Your task to perform on an android device: check google app version Image 0: 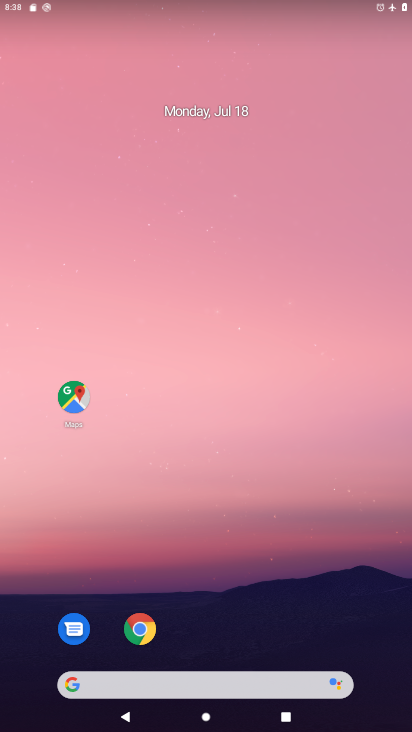
Step 0: click (70, 688)
Your task to perform on an android device: check google app version Image 1: 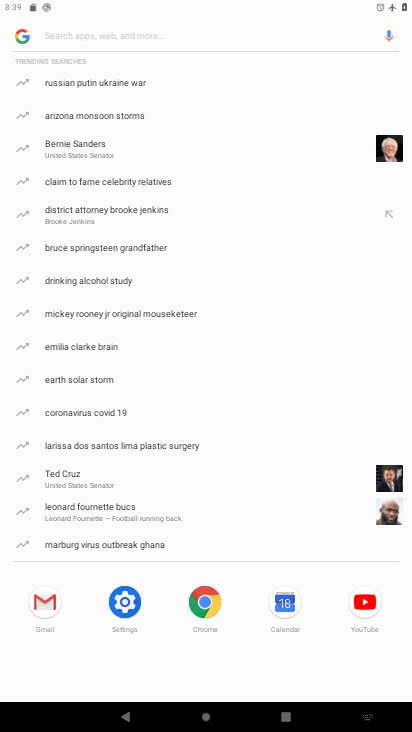
Step 1: click (21, 35)
Your task to perform on an android device: check google app version Image 2: 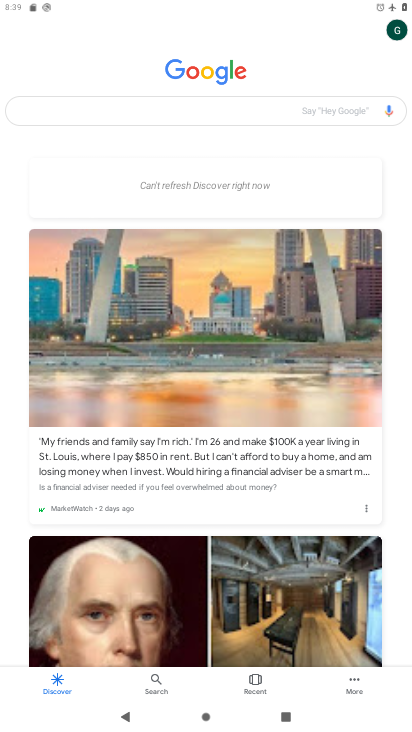
Step 2: click (360, 677)
Your task to perform on an android device: check google app version Image 3: 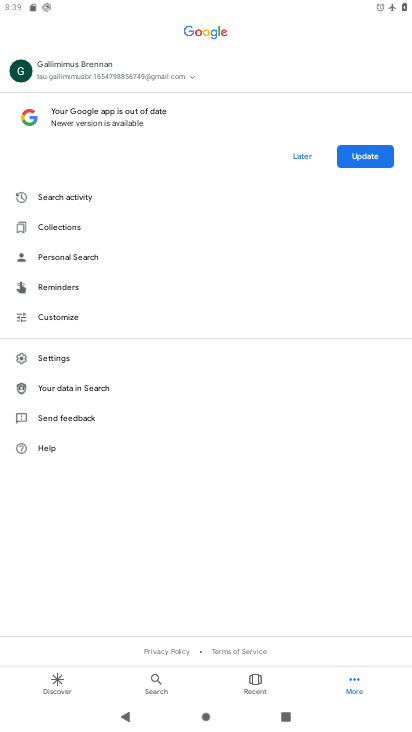
Step 3: click (60, 359)
Your task to perform on an android device: check google app version Image 4: 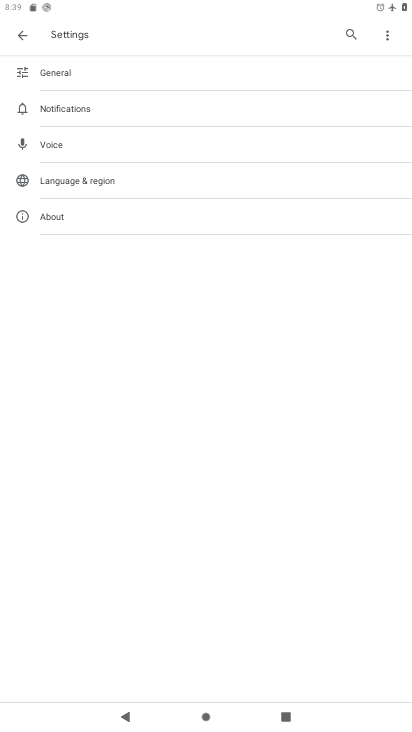
Step 4: click (101, 219)
Your task to perform on an android device: check google app version Image 5: 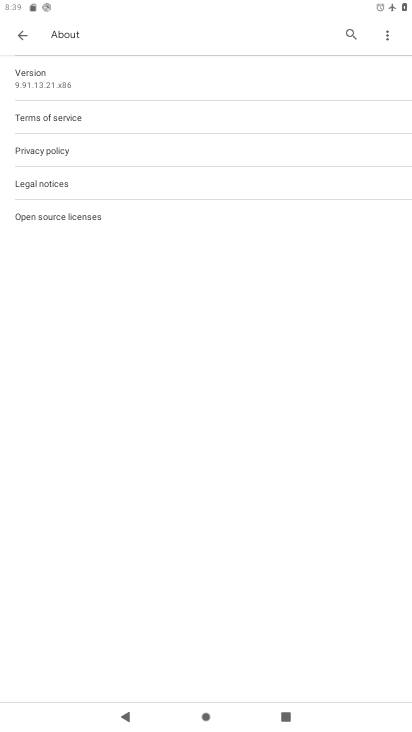
Step 5: task complete